Your task to perform on an android device: Set the phone to "Do not disturb". Image 0: 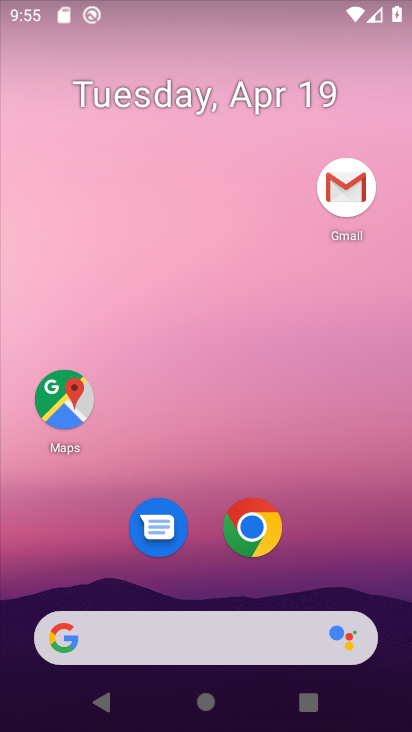
Step 0: drag from (352, 489) to (302, 114)
Your task to perform on an android device: Set the phone to "Do not disturb". Image 1: 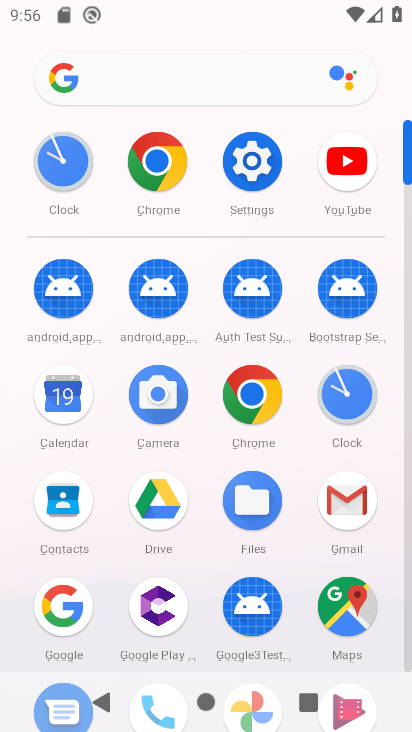
Step 1: click (248, 173)
Your task to perform on an android device: Set the phone to "Do not disturb". Image 2: 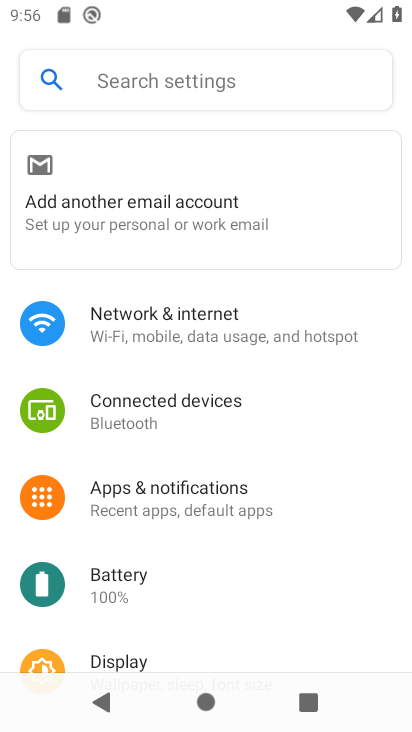
Step 2: drag from (287, 587) to (316, 238)
Your task to perform on an android device: Set the phone to "Do not disturb". Image 3: 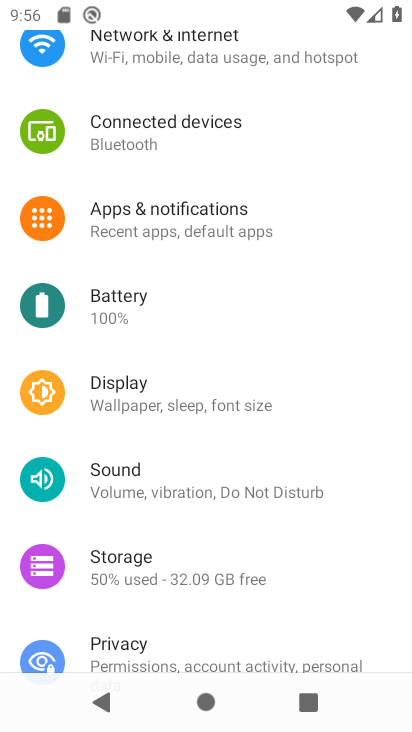
Step 3: click (182, 469)
Your task to perform on an android device: Set the phone to "Do not disturb". Image 4: 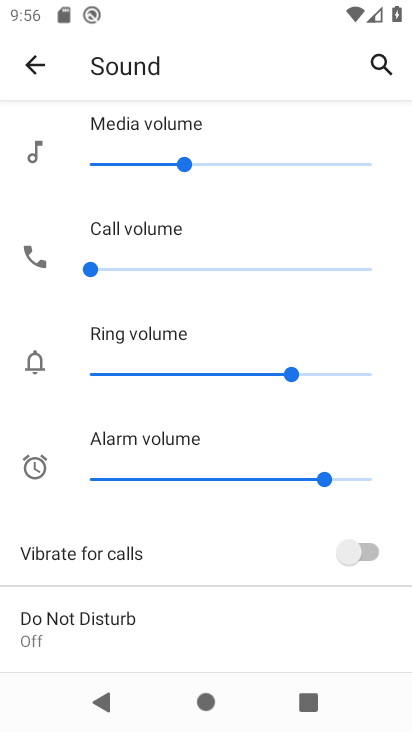
Step 4: drag from (224, 609) to (314, 251)
Your task to perform on an android device: Set the phone to "Do not disturb". Image 5: 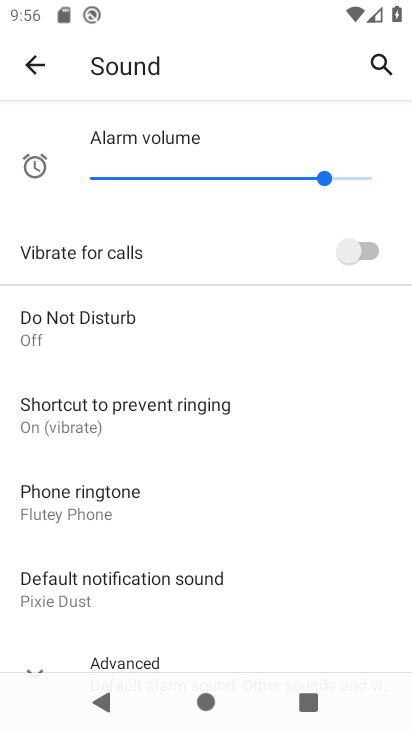
Step 5: click (142, 322)
Your task to perform on an android device: Set the phone to "Do not disturb". Image 6: 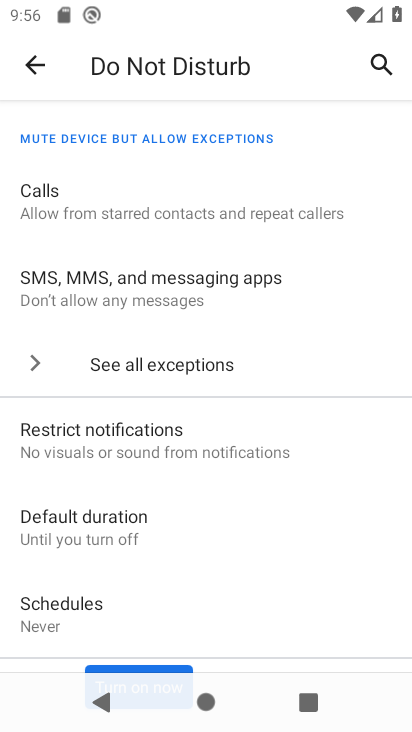
Step 6: drag from (225, 538) to (326, 236)
Your task to perform on an android device: Set the phone to "Do not disturb". Image 7: 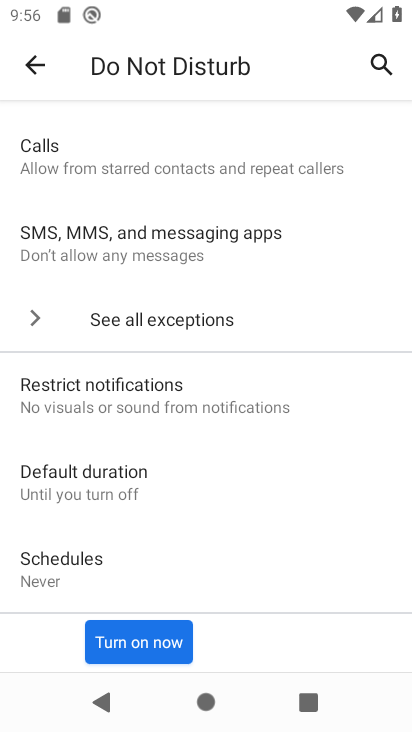
Step 7: click (160, 622)
Your task to perform on an android device: Set the phone to "Do not disturb". Image 8: 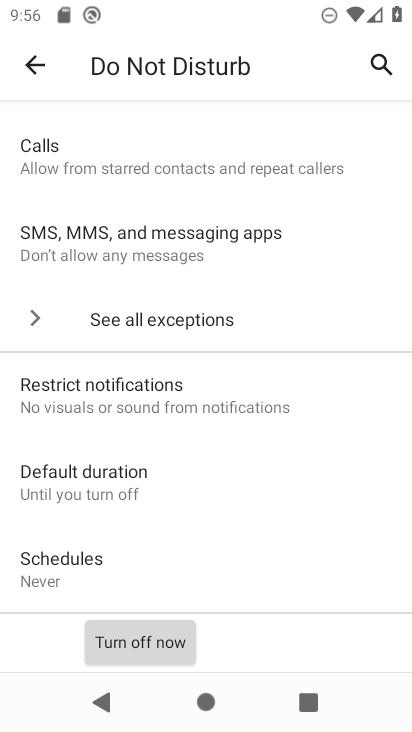
Step 8: task complete